Your task to perform on an android device: See recent photos Image 0: 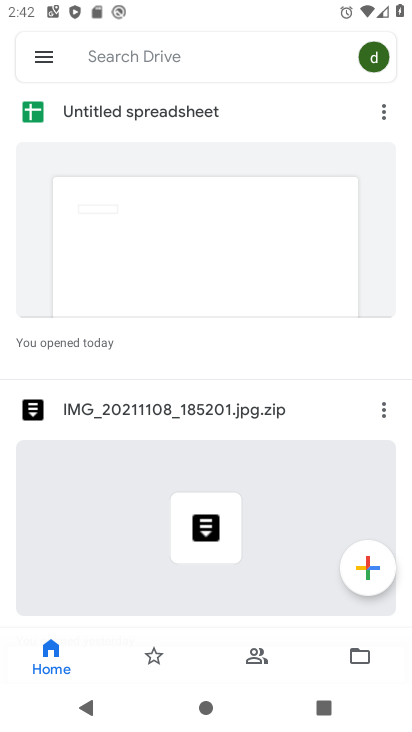
Step 0: press home button
Your task to perform on an android device: See recent photos Image 1: 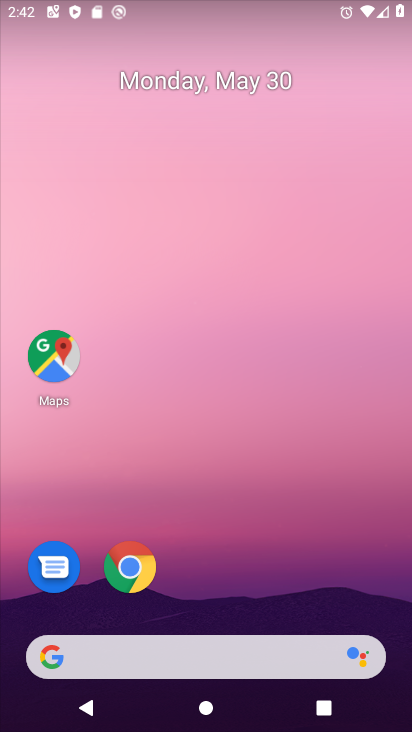
Step 1: drag from (197, 590) to (269, 23)
Your task to perform on an android device: See recent photos Image 2: 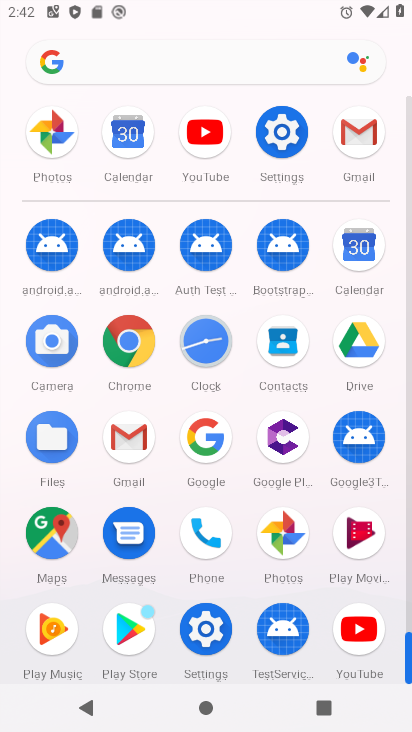
Step 2: click (286, 549)
Your task to perform on an android device: See recent photos Image 3: 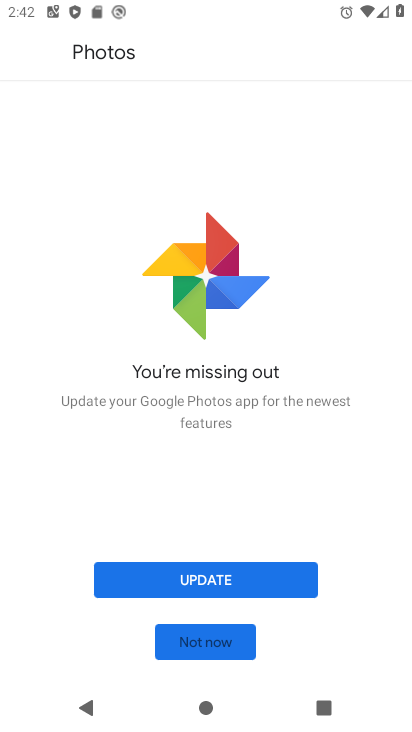
Step 3: click (234, 637)
Your task to perform on an android device: See recent photos Image 4: 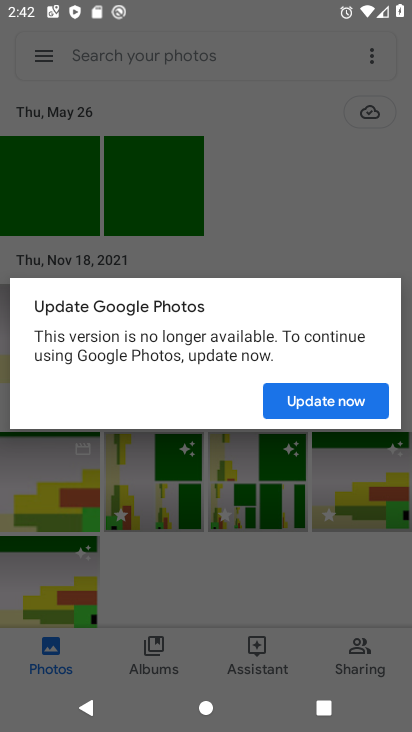
Step 4: click (326, 401)
Your task to perform on an android device: See recent photos Image 5: 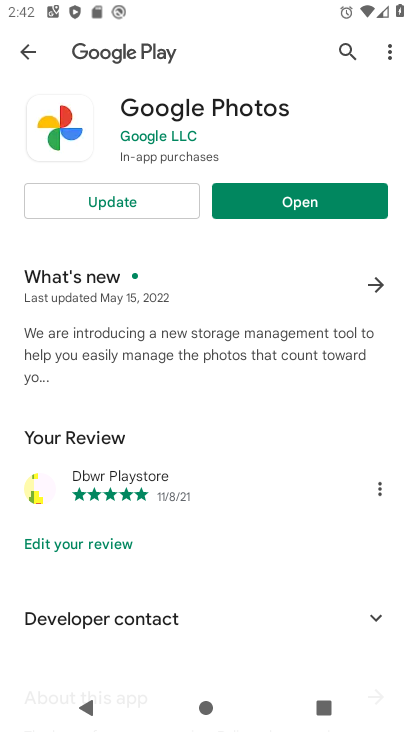
Step 5: click (160, 199)
Your task to perform on an android device: See recent photos Image 6: 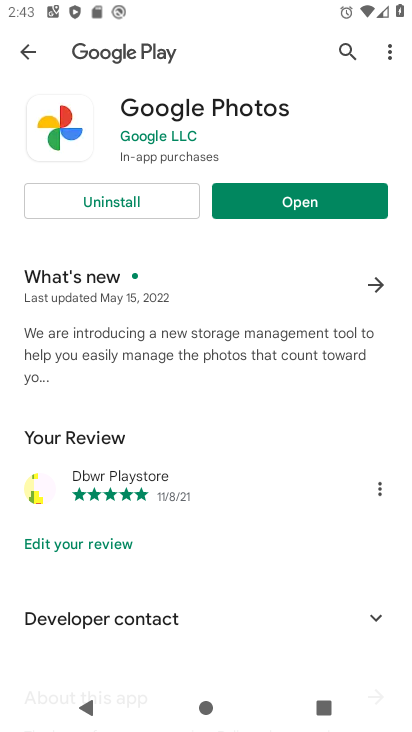
Step 6: click (280, 203)
Your task to perform on an android device: See recent photos Image 7: 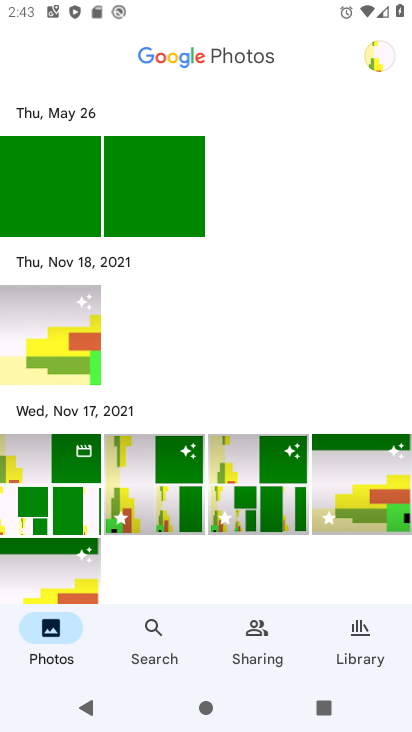
Step 7: task complete